Your task to perform on an android device: Go to Google maps Image 0: 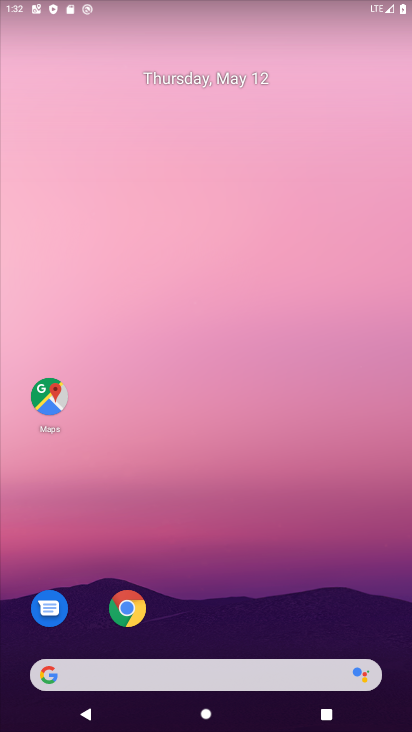
Step 0: click (45, 402)
Your task to perform on an android device: Go to Google maps Image 1: 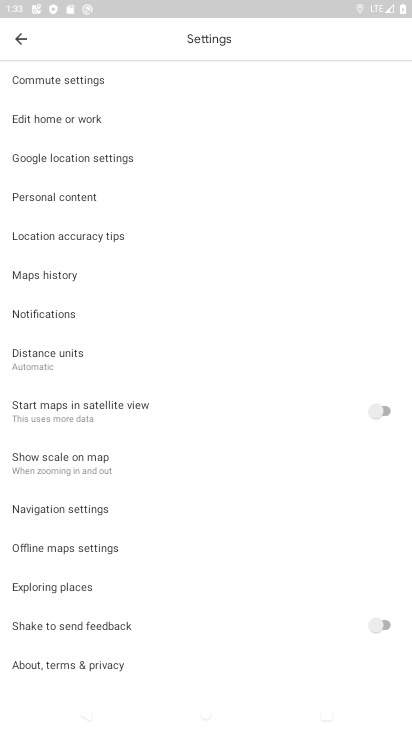
Step 1: click (23, 41)
Your task to perform on an android device: Go to Google maps Image 2: 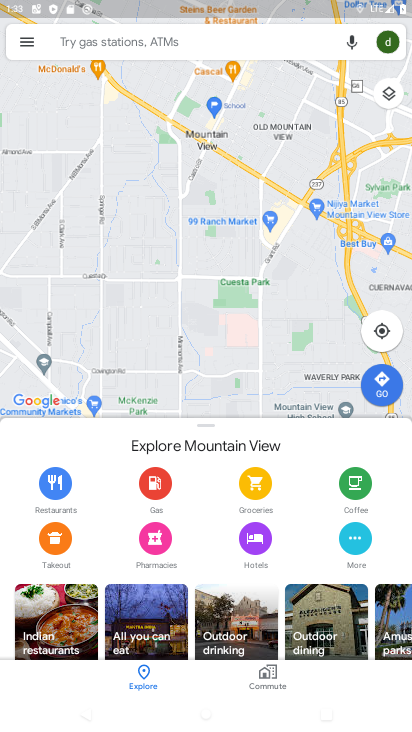
Step 2: task complete